Your task to perform on an android device: Open location settings Image 0: 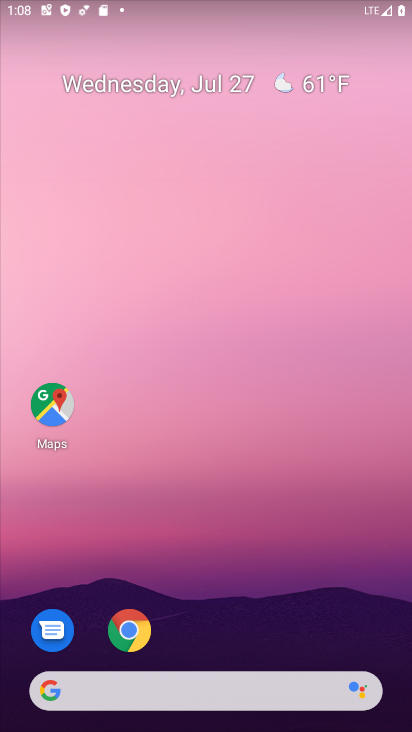
Step 0: drag from (217, 647) to (204, 183)
Your task to perform on an android device: Open location settings Image 1: 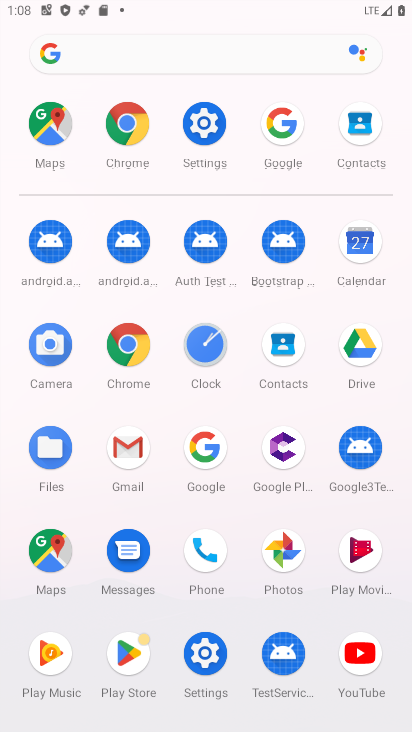
Step 1: click (198, 122)
Your task to perform on an android device: Open location settings Image 2: 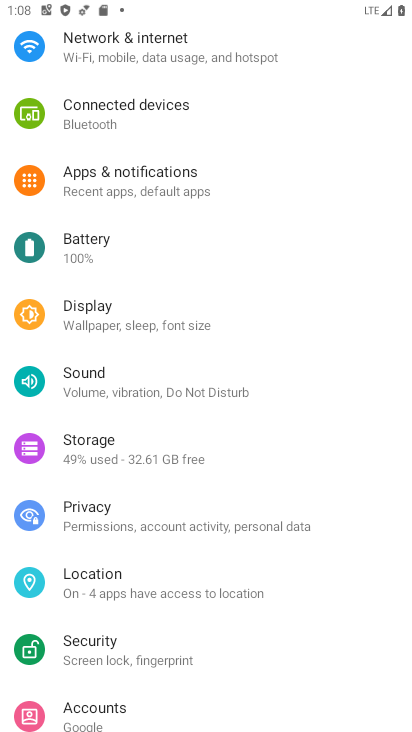
Step 2: click (85, 581)
Your task to perform on an android device: Open location settings Image 3: 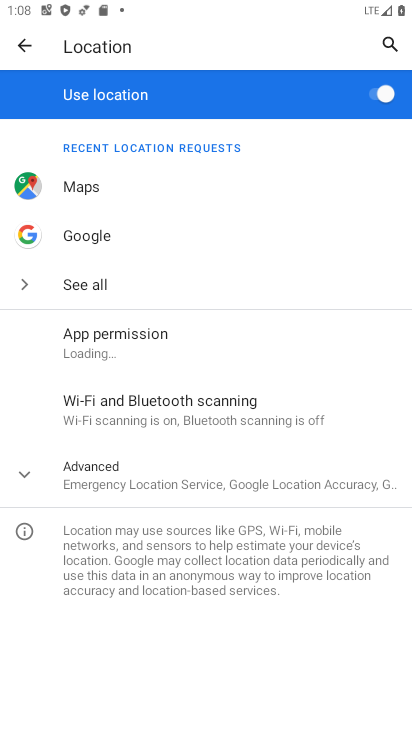
Step 3: click (94, 481)
Your task to perform on an android device: Open location settings Image 4: 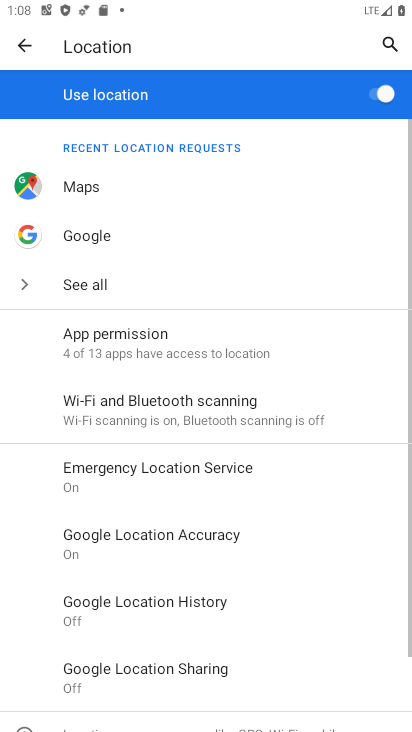
Step 4: task complete